Your task to perform on an android device: Open Chrome and go to settings Image 0: 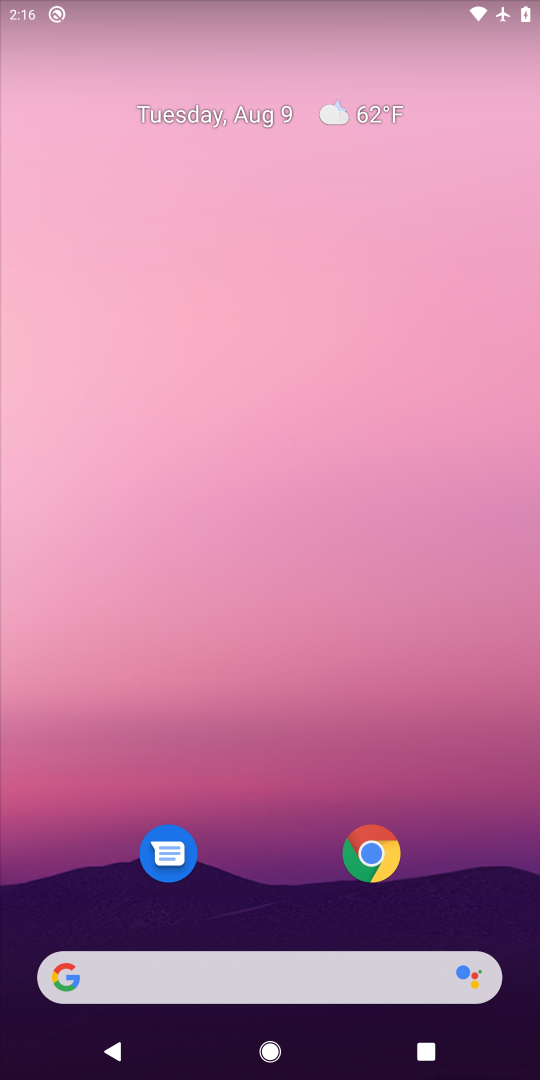
Step 0: press home button
Your task to perform on an android device: Open Chrome and go to settings Image 1: 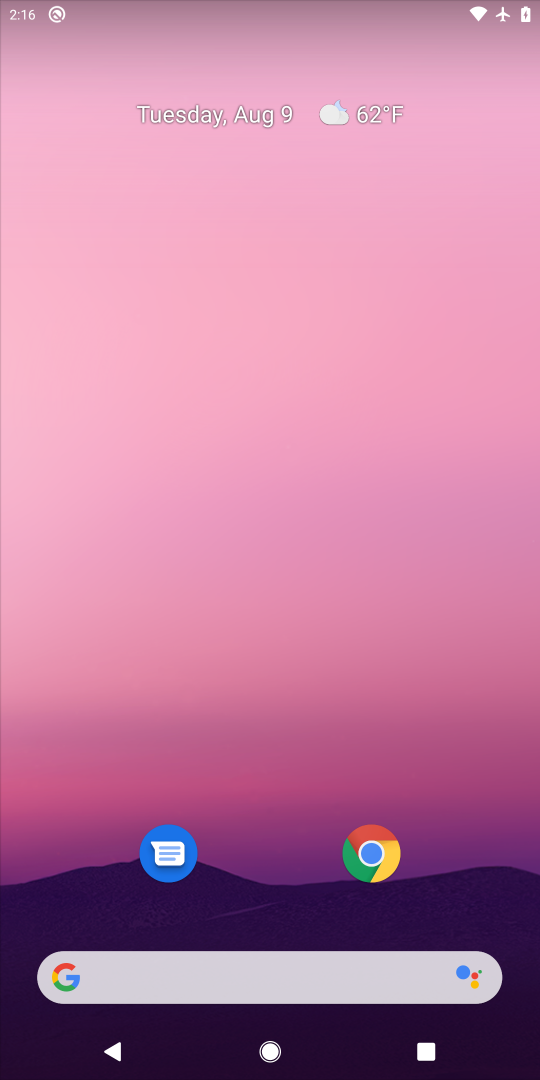
Step 1: click (376, 870)
Your task to perform on an android device: Open Chrome and go to settings Image 2: 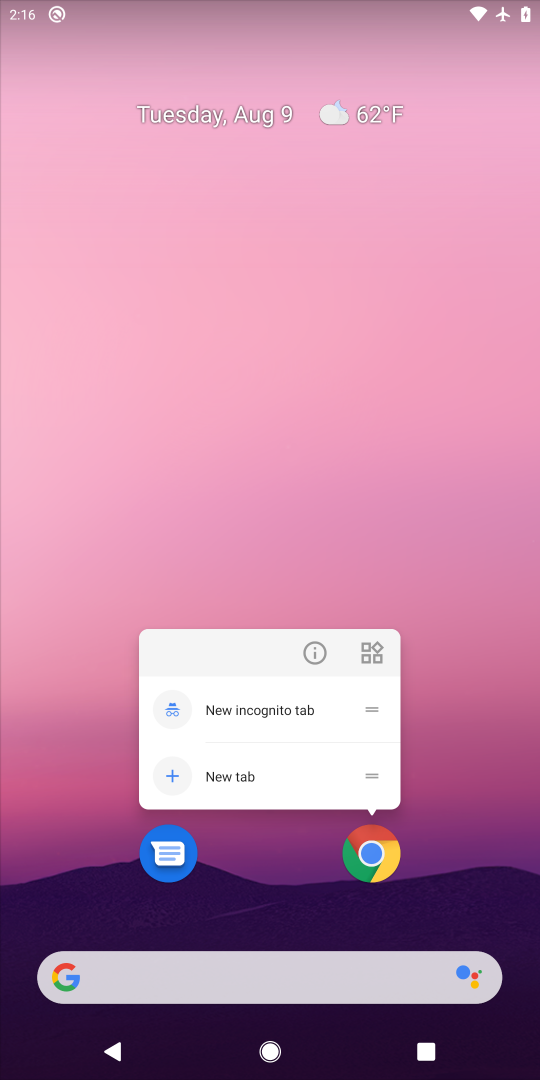
Step 2: click (368, 863)
Your task to perform on an android device: Open Chrome and go to settings Image 3: 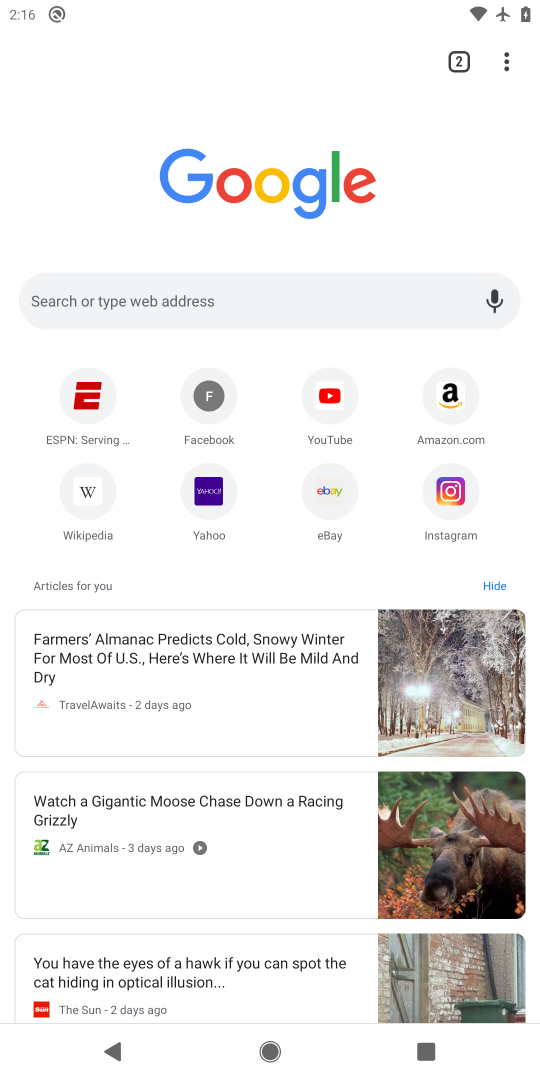
Step 3: task complete